Your task to perform on an android device: Open my contact list Image 0: 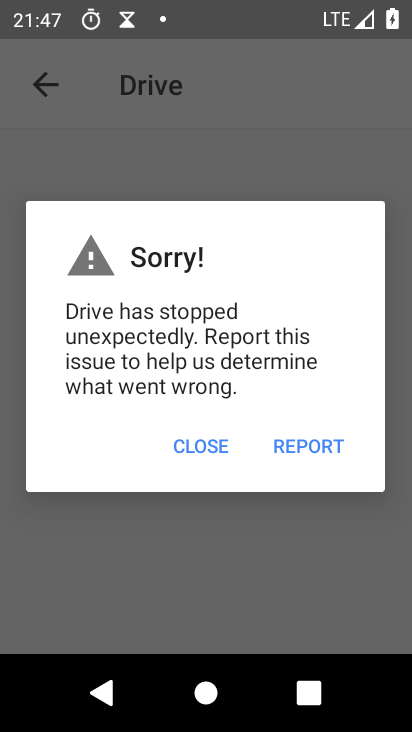
Step 0: press home button
Your task to perform on an android device: Open my contact list Image 1: 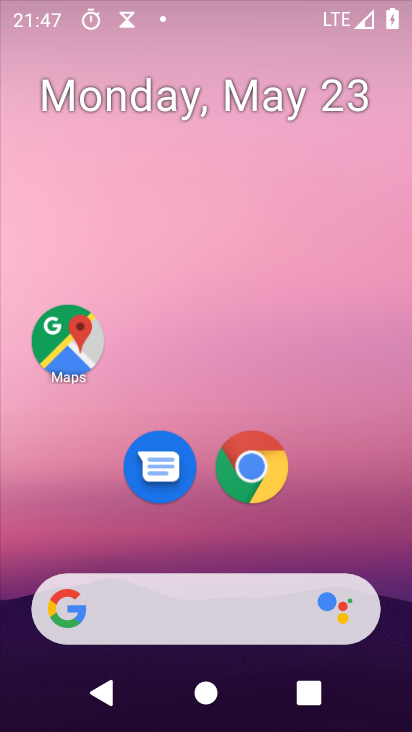
Step 1: drag from (315, 520) to (210, 0)
Your task to perform on an android device: Open my contact list Image 2: 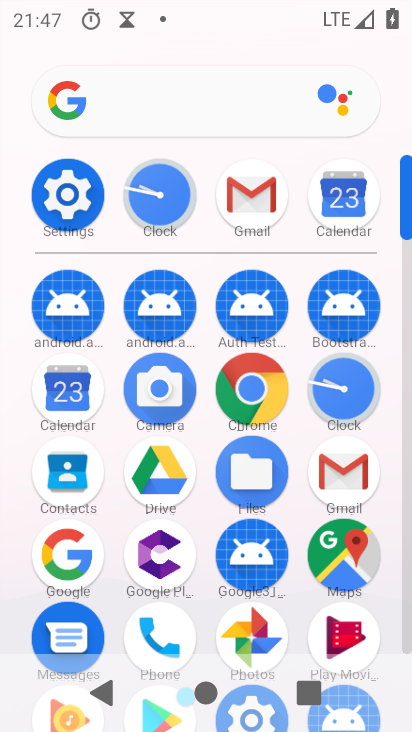
Step 2: click (80, 483)
Your task to perform on an android device: Open my contact list Image 3: 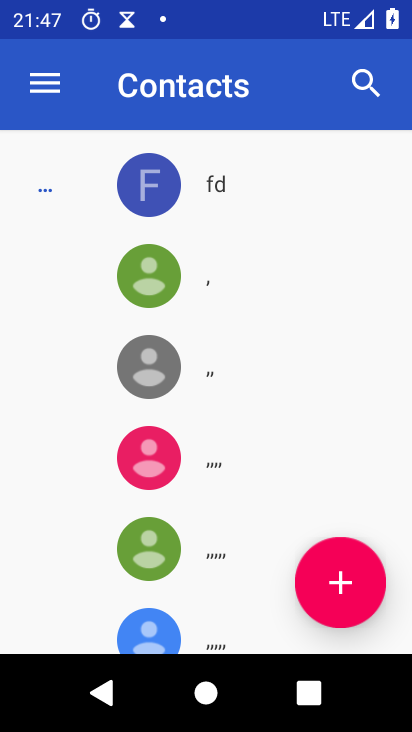
Step 3: task complete